Your task to perform on an android device: turn off airplane mode Image 0: 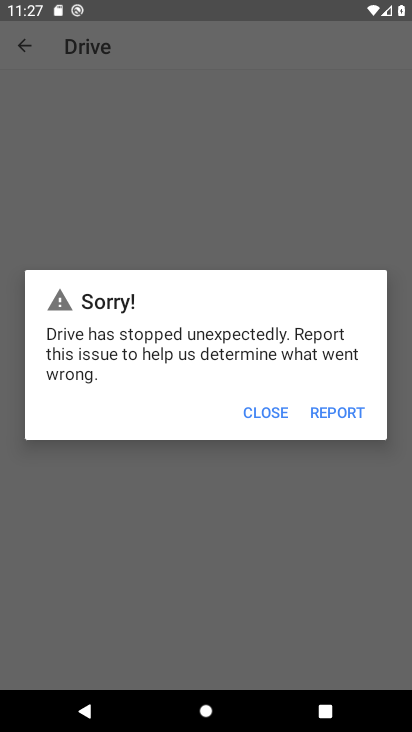
Step 0: press home button
Your task to perform on an android device: turn off airplane mode Image 1: 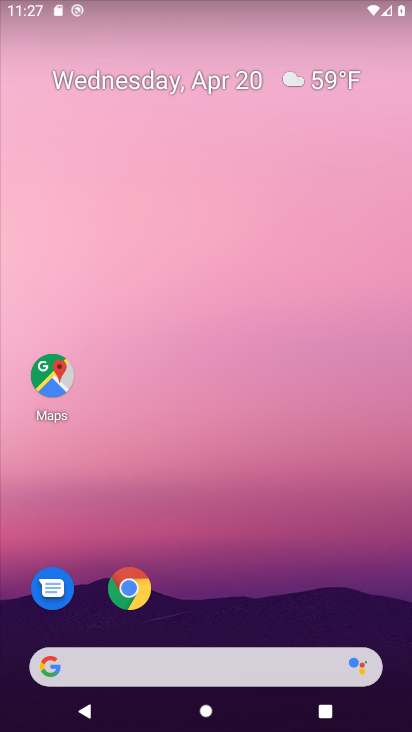
Step 1: drag from (374, 618) to (340, 200)
Your task to perform on an android device: turn off airplane mode Image 2: 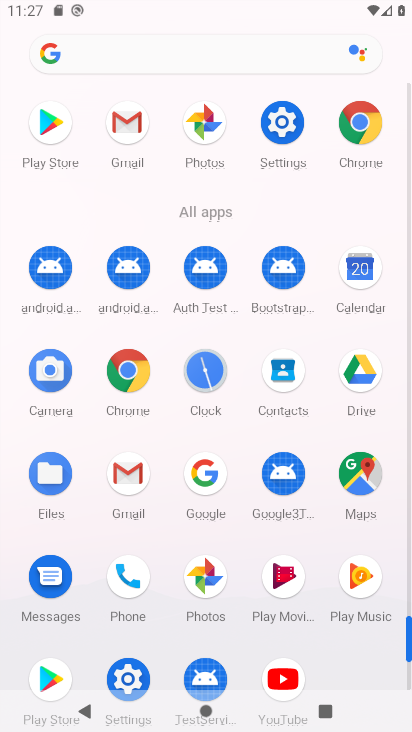
Step 2: click (407, 677)
Your task to perform on an android device: turn off airplane mode Image 3: 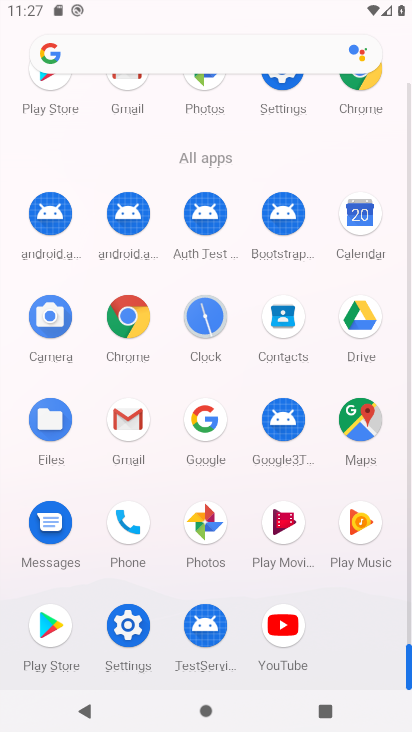
Step 3: click (128, 626)
Your task to perform on an android device: turn off airplane mode Image 4: 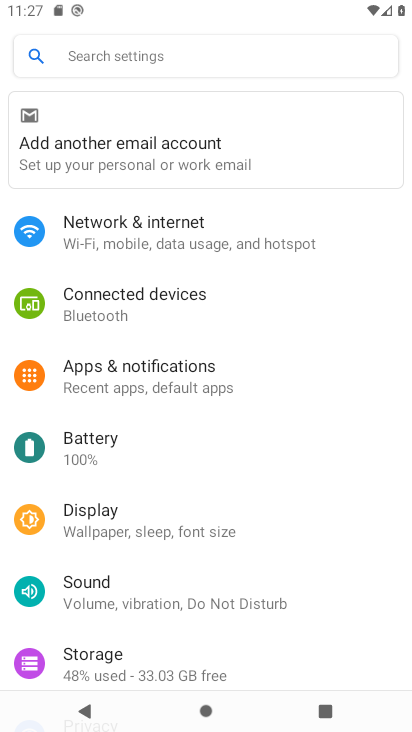
Step 4: click (124, 225)
Your task to perform on an android device: turn off airplane mode Image 5: 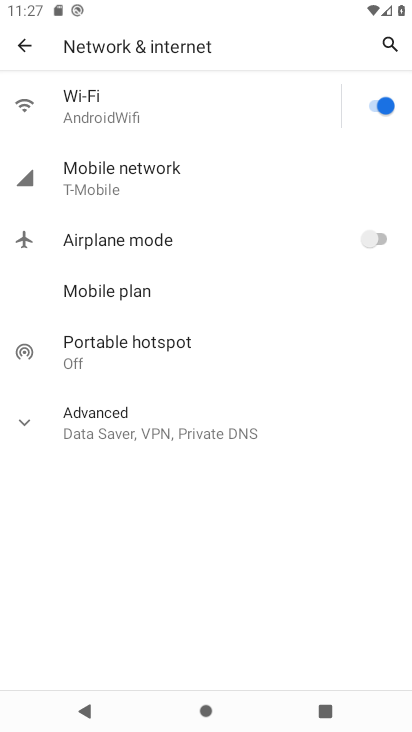
Step 5: task complete